Your task to perform on an android device: allow notifications from all sites in the chrome app Image 0: 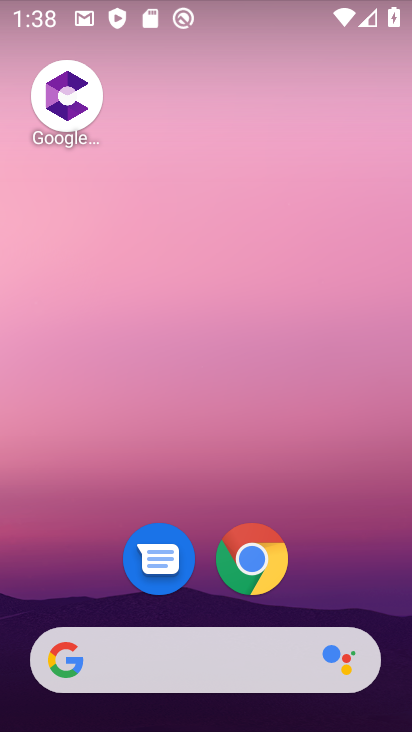
Step 0: drag from (328, 587) to (332, 33)
Your task to perform on an android device: allow notifications from all sites in the chrome app Image 1: 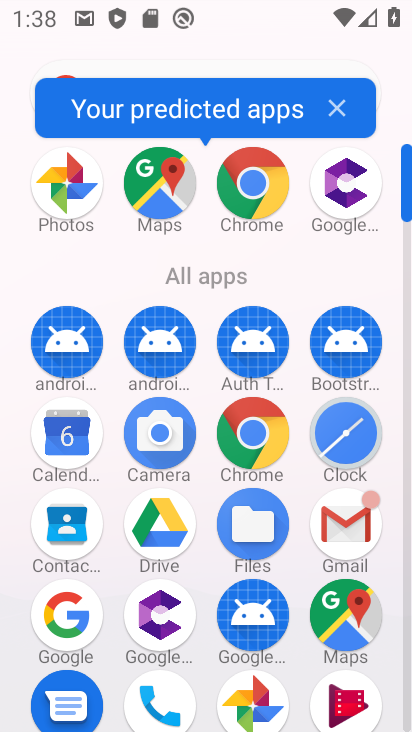
Step 1: click (265, 427)
Your task to perform on an android device: allow notifications from all sites in the chrome app Image 2: 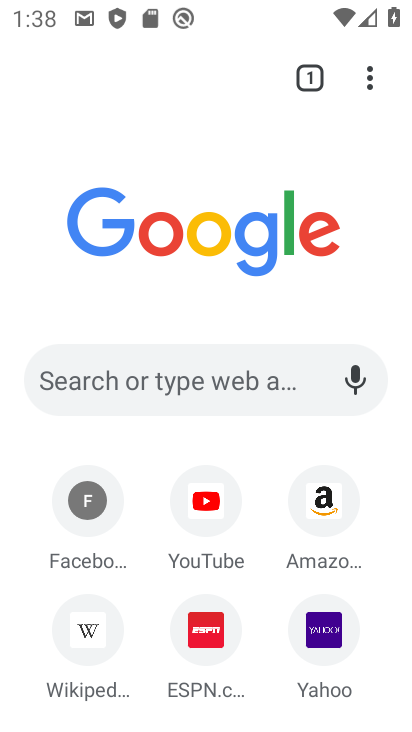
Step 2: drag from (362, 72) to (128, 638)
Your task to perform on an android device: allow notifications from all sites in the chrome app Image 3: 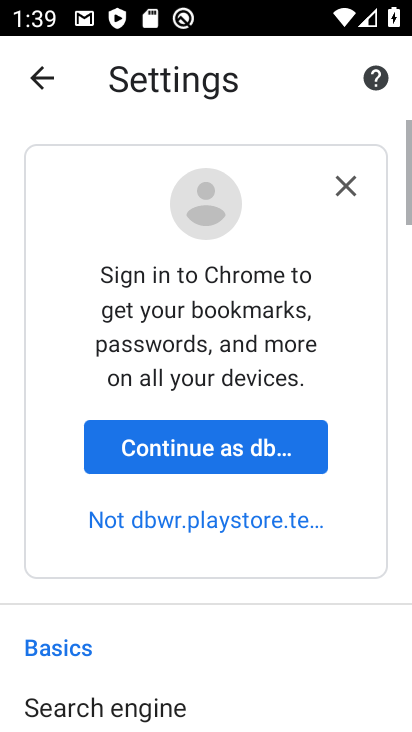
Step 3: drag from (189, 630) to (125, 121)
Your task to perform on an android device: allow notifications from all sites in the chrome app Image 4: 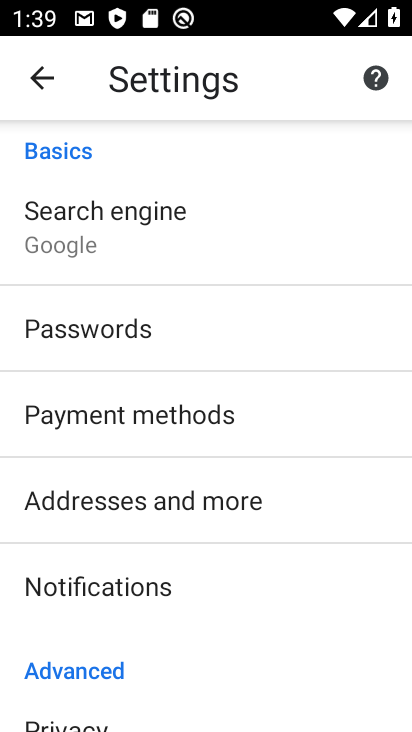
Step 4: drag from (201, 660) to (220, 247)
Your task to perform on an android device: allow notifications from all sites in the chrome app Image 5: 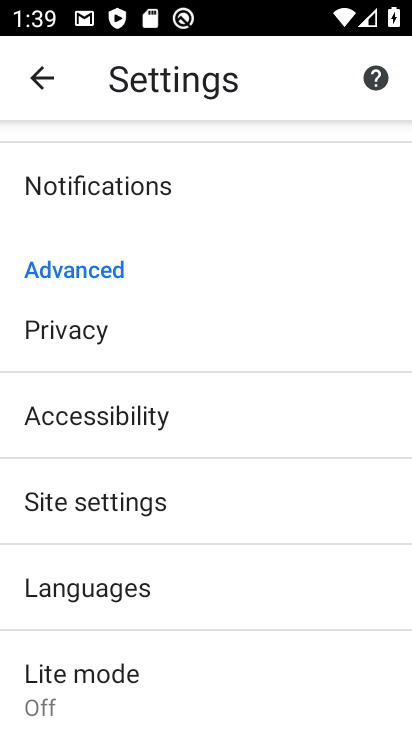
Step 5: click (181, 493)
Your task to perform on an android device: allow notifications from all sites in the chrome app Image 6: 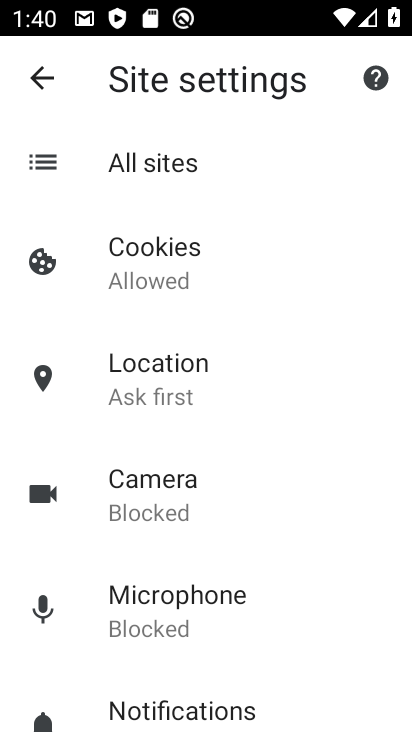
Step 6: click (171, 708)
Your task to perform on an android device: allow notifications from all sites in the chrome app Image 7: 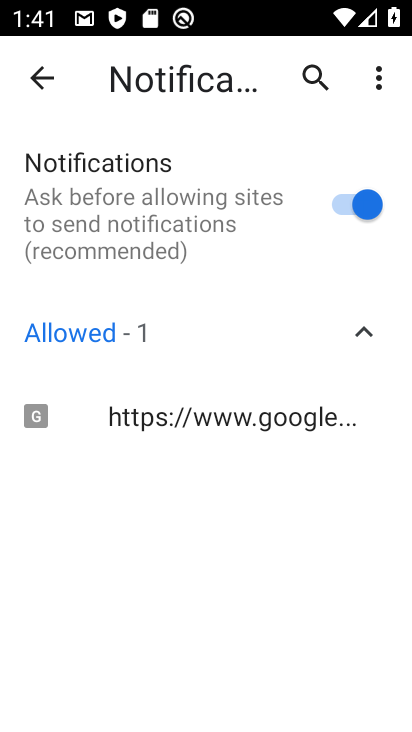
Step 7: click (267, 429)
Your task to perform on an android device: allow notifications from all sites in the chrome app Image 8: 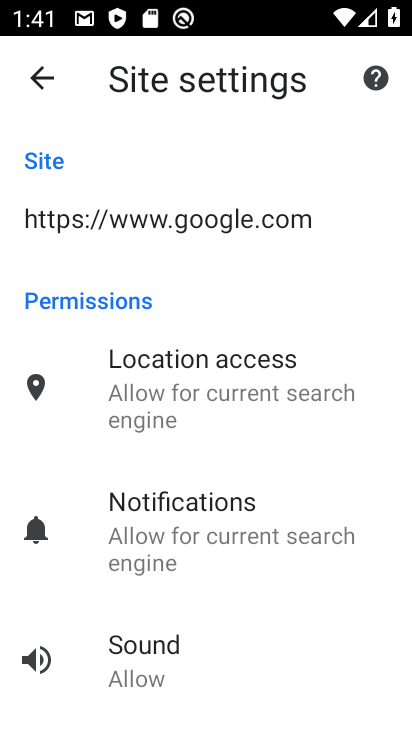
Step 8: click (291, 520)
Your task to perform on an android device: allow notifications from all sites in the chrome app Image 9: 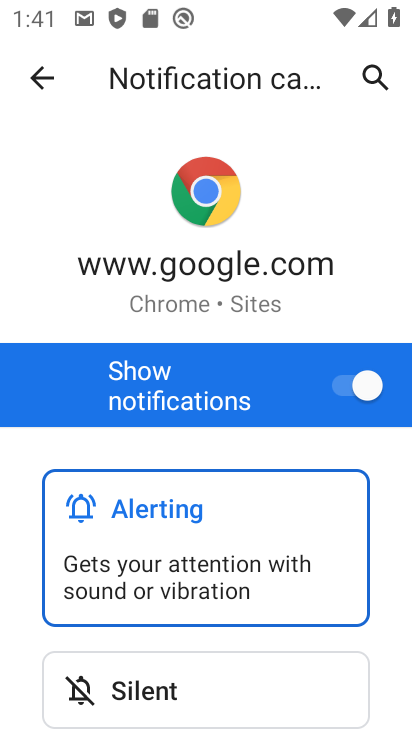
Step 9: task complete